Your task to perform on an android device: toggle notifications settings in the gmail app Image 0: 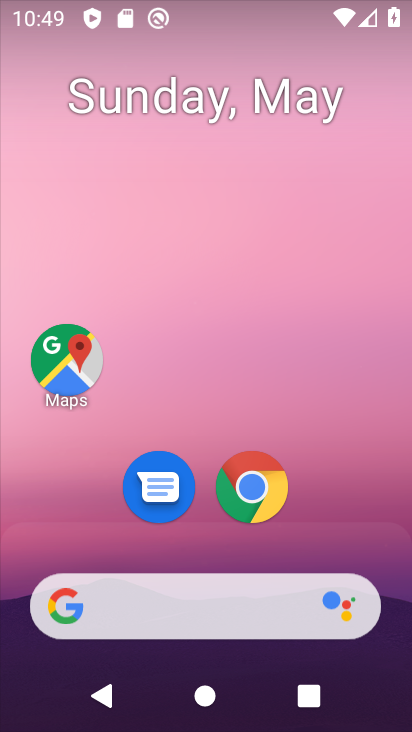
Step 0: drag from (357, 522) to (355, 0)
Your task to perform on an android device: toggle notifications settings in the gmail app Image 1: 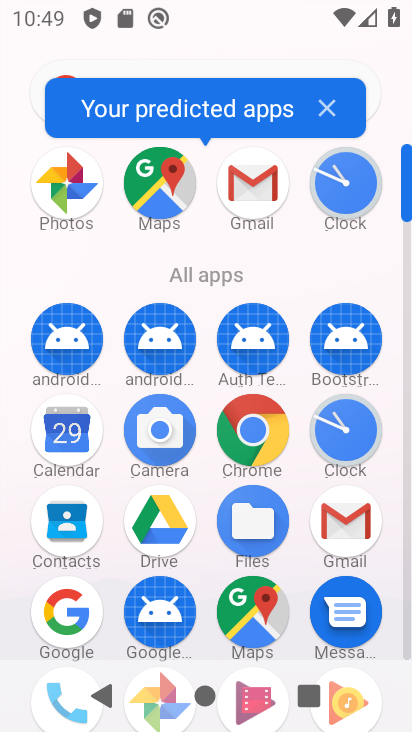
Step 1: click (257, 178)
Your task to perform on an android device: toggle notifications settings in the gmail app Image 2: 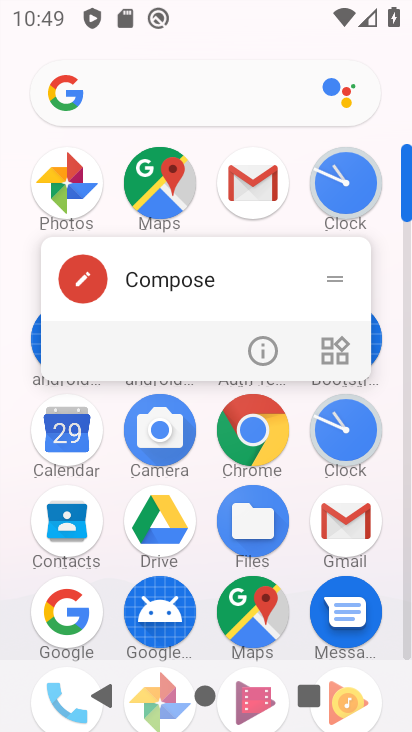
Step 2: click (257, 178)
Your task to perform on an android device: toggle notifications settings in the gmail app Image 3: 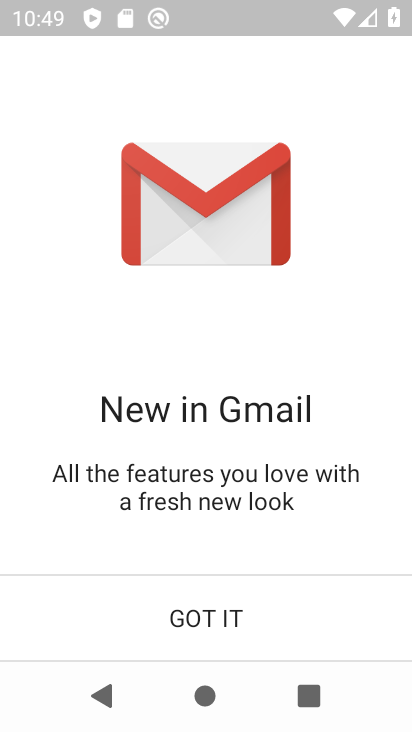
Step 3: click (266, 622)
Your task to perform on an android device: toggle notifications settings in the gmail app Image 4: 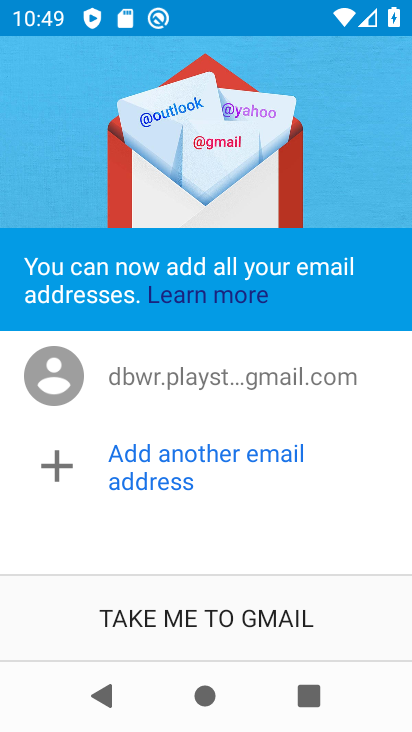
Step 4: click (266, 622)
Your task to perform on an android device: toggle notifications settings in the gmail app Image 5: 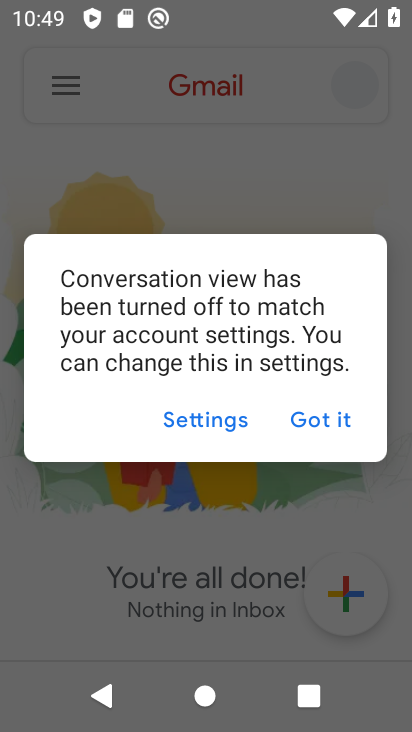
Step 5: click (324, 416)
Your task to perform on an android device: toggle notifications settings in the gmail app Image 6: 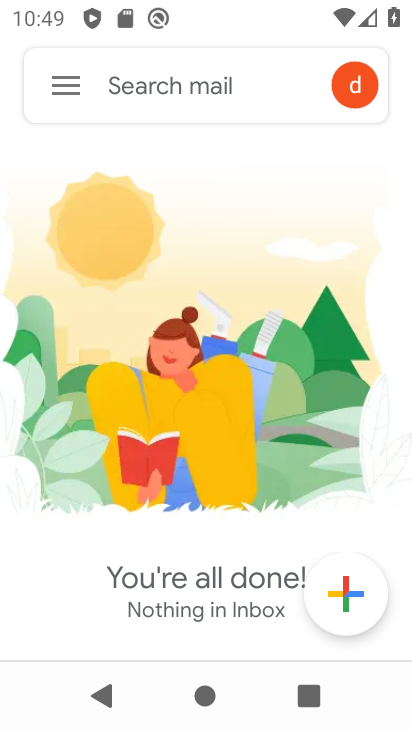
Step 6: click (78, 83)
Your task to perform on an android device: toggle notifications settings in the gmail app Image 7: 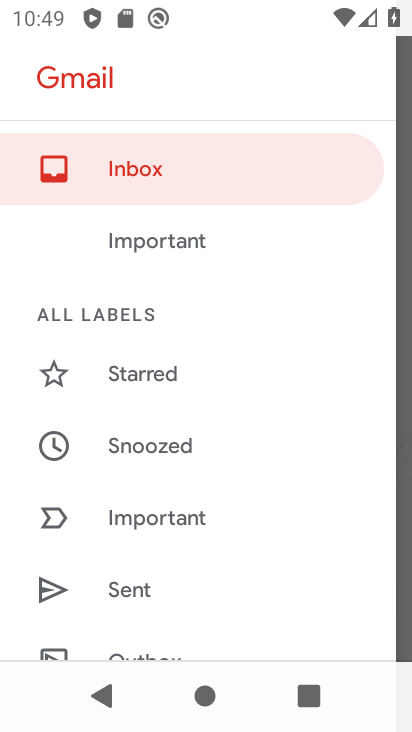
Step 7: drag from (185, 574) to (167, 55)
Your task to perform on an android device: toggle notifications settings in the gmail app Image 8: 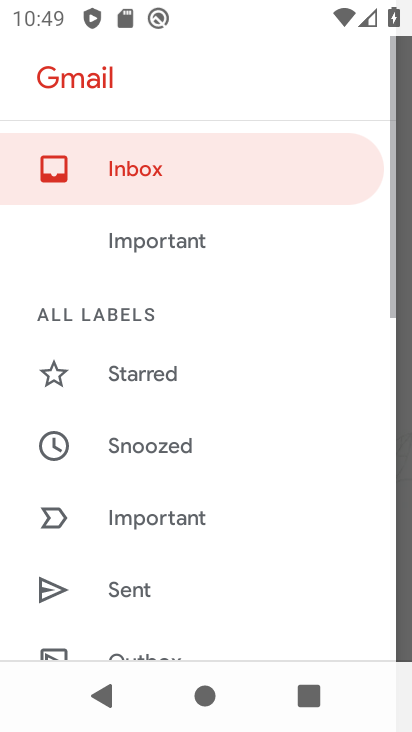
Step 8: drag from (136, 568) to (174, 51)
Your task to perform on an android device: toggle notifications settings in the gmail app Image 9: 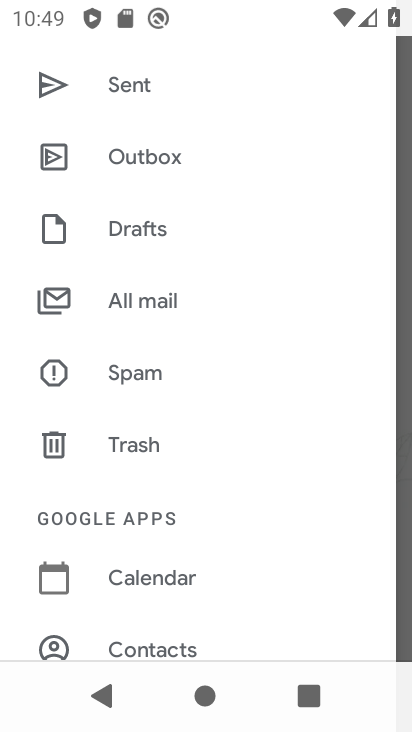
Step 9: drag from (112, 613) to (102, 175)
Your task to perform on an android device: toggle notifications settings in the gmail app Image 10: 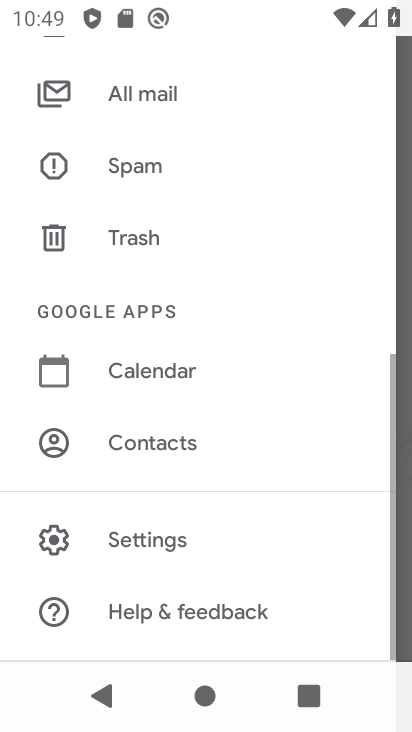
Step 10: click (142, 529)
Your task to perform on an android device: toggle notifications settings in the gmail app Image 11: 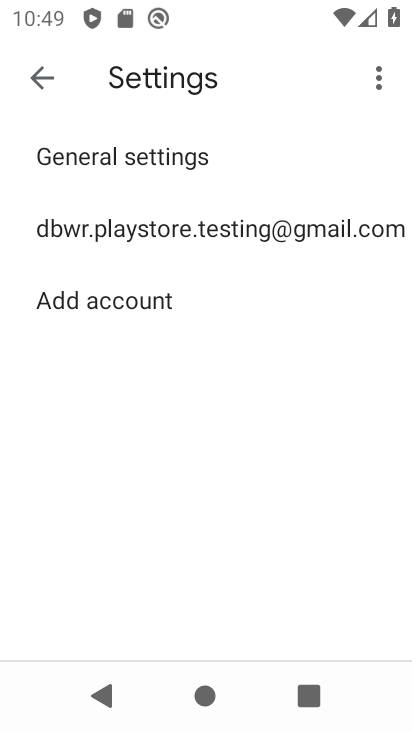
Step 11: click (146, 221)
Your task to perform on an android device: toggle notifications settings in the gmail app Image 12: 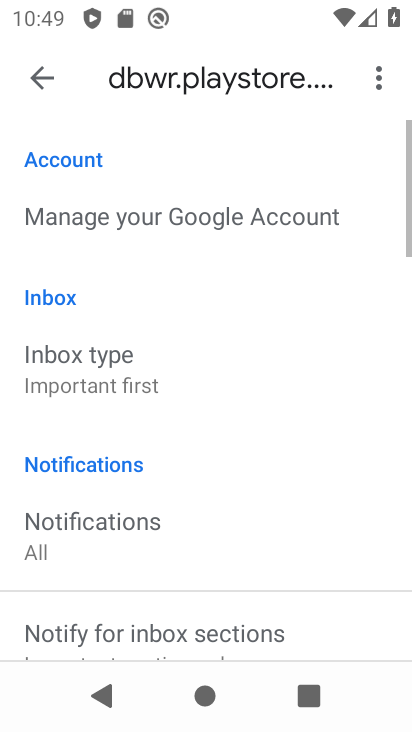
Step 12: drag from (169, 569) to (213, 41)
Your task to perform on an android device: toggle notifications settings in the gmail app Image 13: 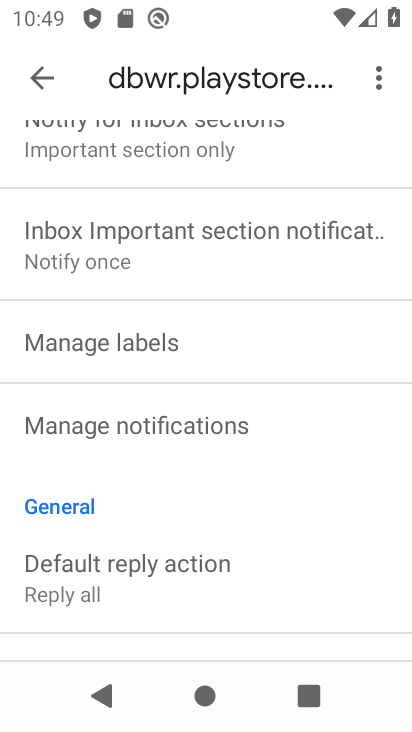
Step 13: drag from (149, 589) to (154, 355)
Your task to perform on an android device: toggle notifications settings in the gmail app Image 14: 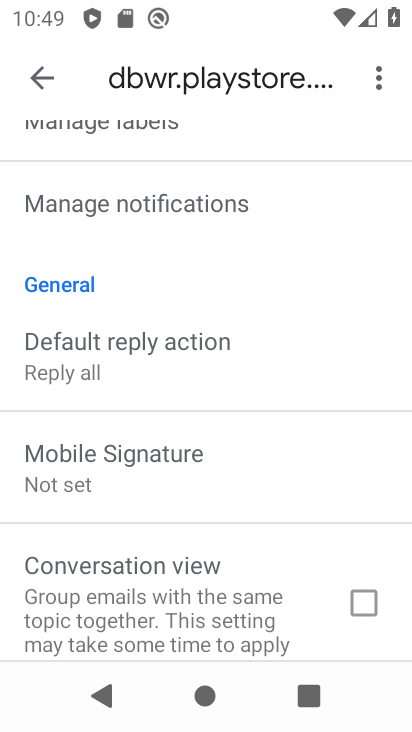
Step 14: click (168, 212)
Your task to perform on an android device: toggle notifications settings in the gmail app Image 15: 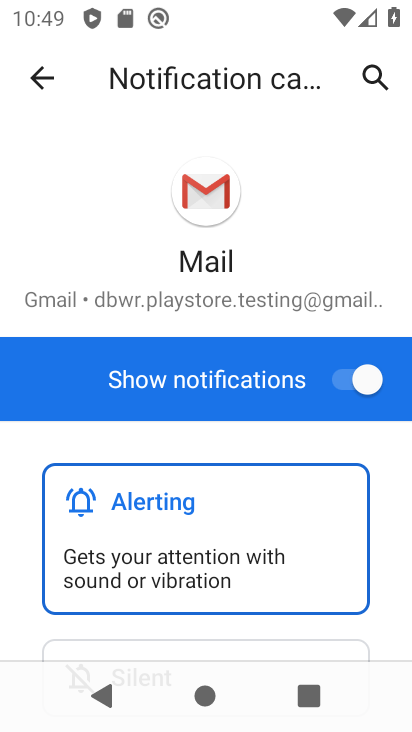
Step 15: click (344, 364)
Your task to perform on an android device: toggle notifications settings in the gmail app Image 16: 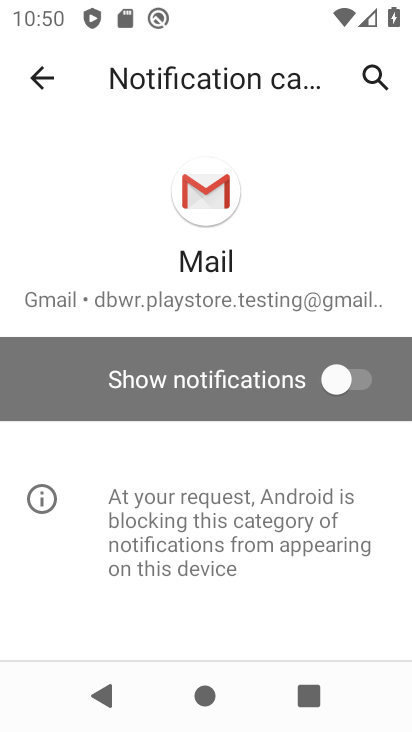
Step 16: task complete